Your task to perform on an android device: Go to display settings Image 0: 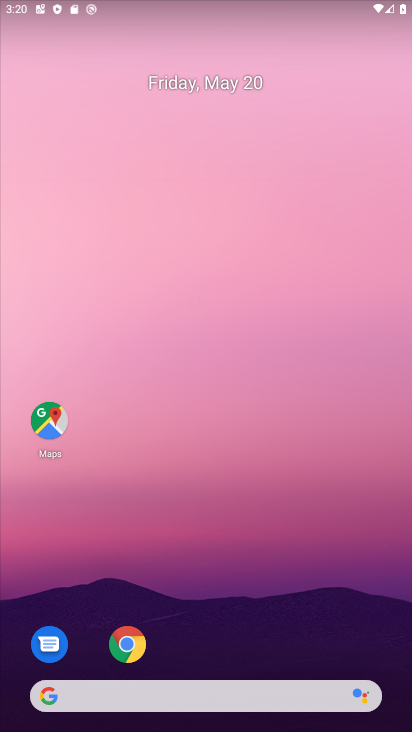
Step 0: drag from (379, 613) to (309, 180)
Your task to perform on an android device: Go to display settings Image 1: 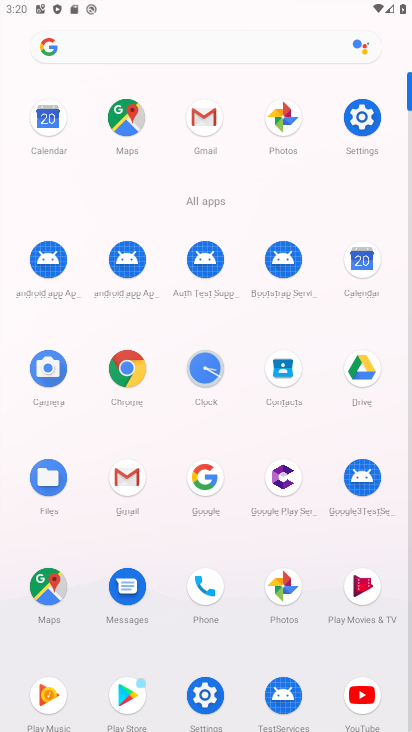
Step 1: click (337, 150)
Your task to perform on an android device: Go to display settings Image 2: 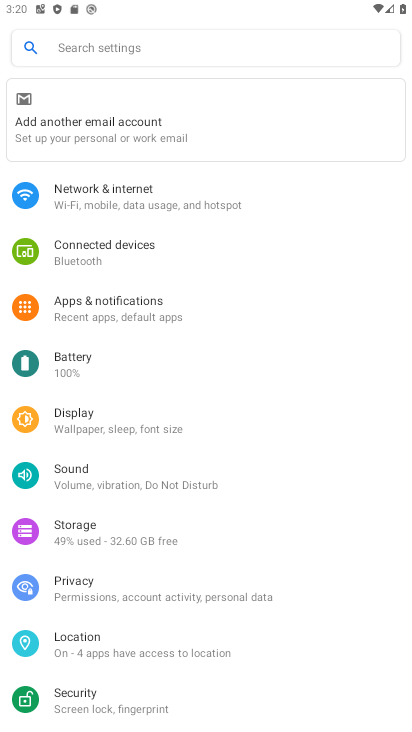
Step 2: click (129, 403)
Your task to perform on an android device: Go to display settings Image 3: 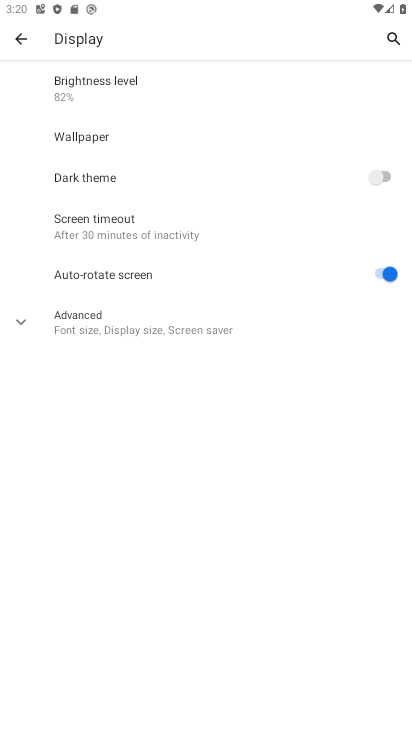
Step 3: task complete